Your task to perform on an android device: turn off javascript in the chrome app Image 0: 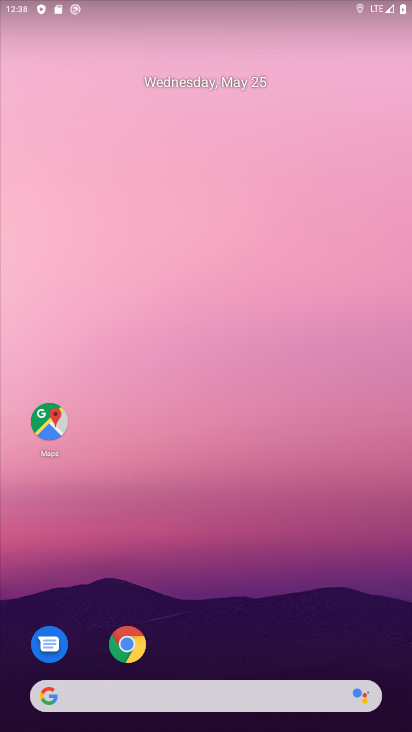
Step 0: click (129, 641)
Your task to perform on an android device: turn off javascript in the chrome app Image 1: 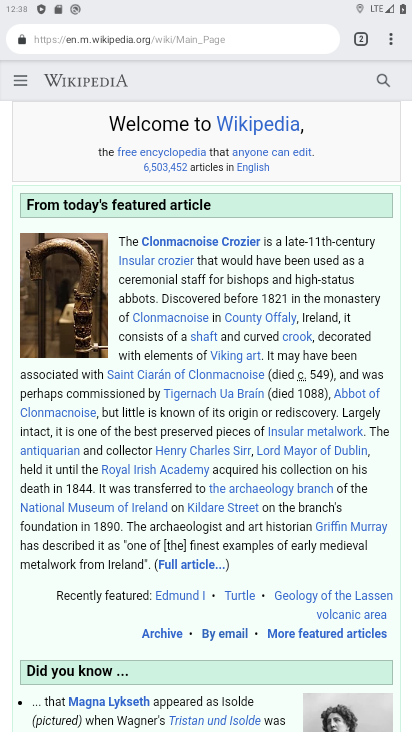
Step 1: click (392, 41)
Your task to perform on an android device: turn off javascript in the chrome app Image 2: 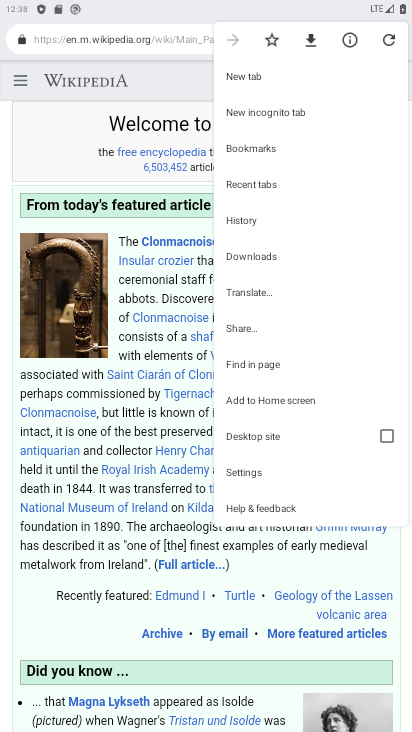
Step 2: click (245, 467)
Your task to perform on an android device: turn off javascript in the chrome app Image 3: 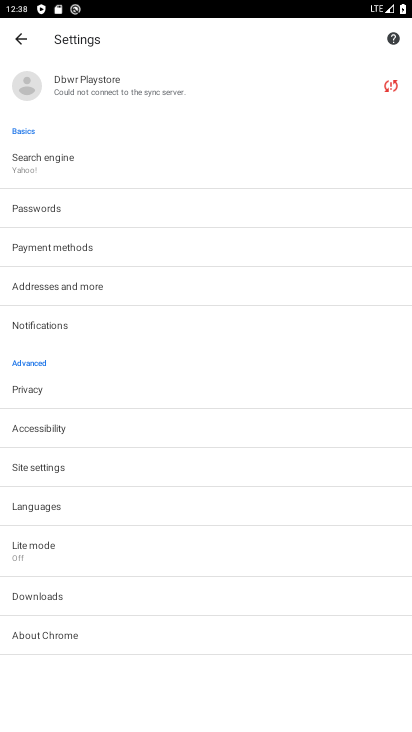
Step 3: click (38, 467)
Your task to perform on an android device: turn off javascript in the chrome app Image 4: 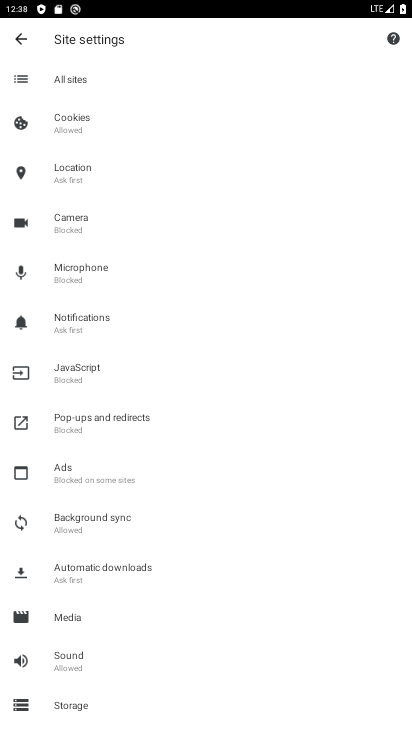
Step 4: click (87, 372)
Your task to perform on an android device: turn off javascript in the chrome app Image 5: 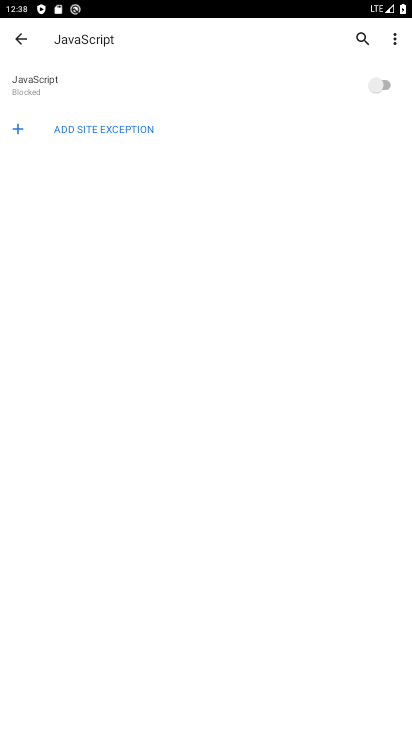
Step 5: task complete